Your task to perform on an android device: Open Chrome and go to settings Image 0: 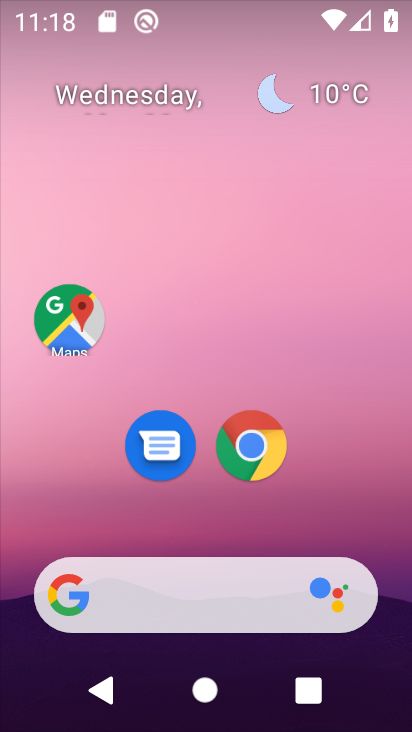
Step 0: click (258, 445)
Your task to perform on an android device: Open Chrome and go to settings Image 1: 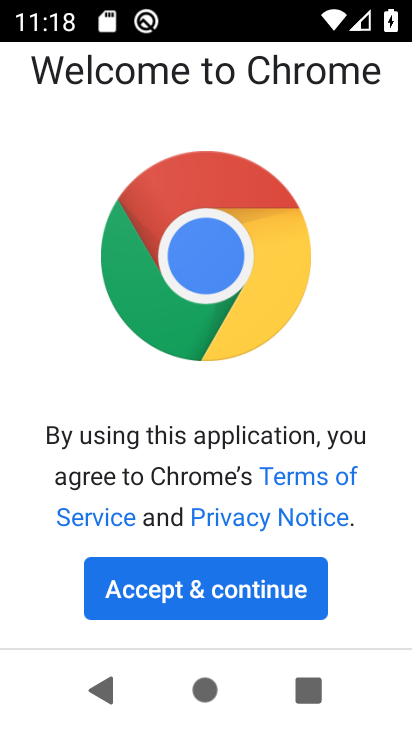
Step 1: click (223, 593)
Your task to perform on an android device: Open Chrome and go to settings Image 2: 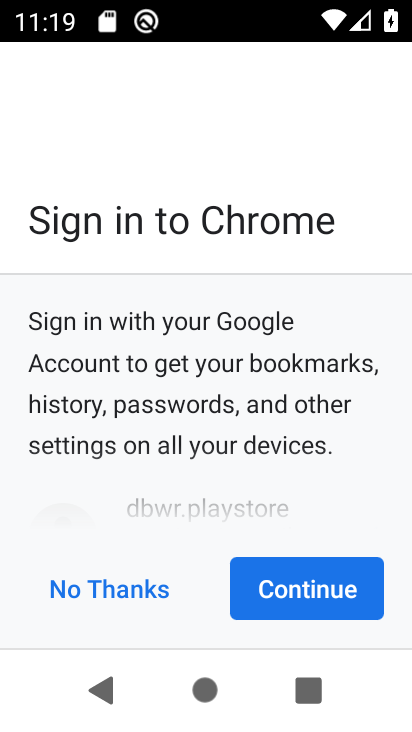
Step 2: click (296, 590)
Your task to perform on an android device: Open Chrome and go to settings Image 3: 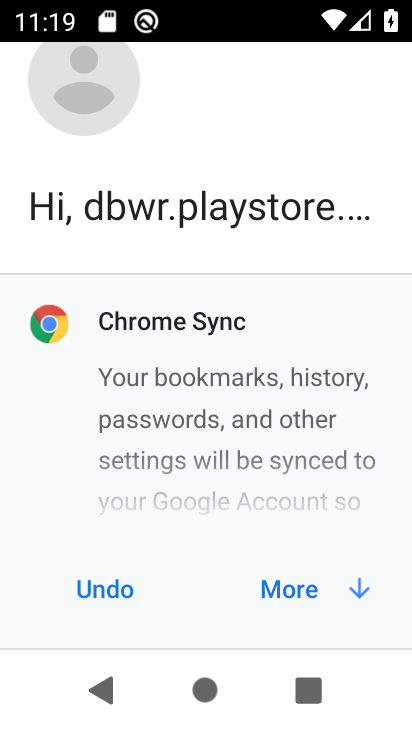
Step 3: click (309, 589)
Your task to perform on an android device: Open Chrome and go to settings Image 4: 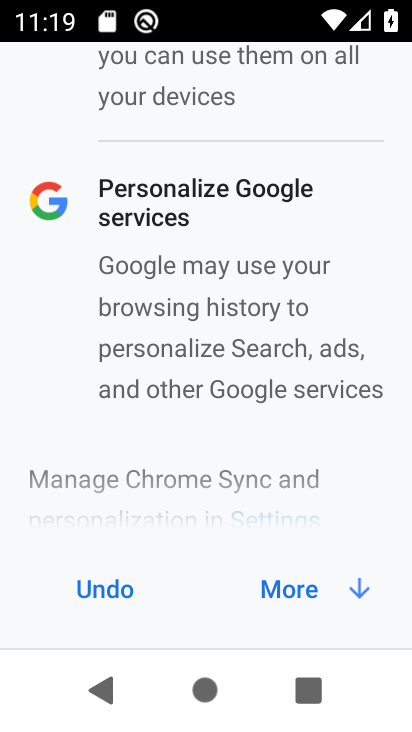
Step 4: click (307, 590)
Your task to perform on an android device: Open Chrome and go to settings Image 5: 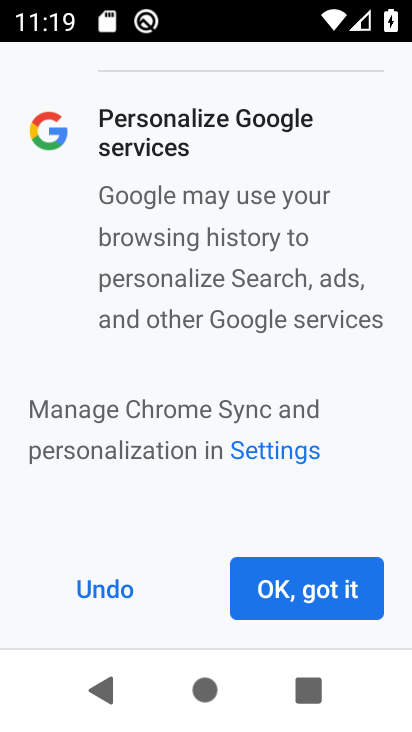
Step 5: click (305, 589)
Your task to perform on an android device: Open Chrome and go to settings Image 6: 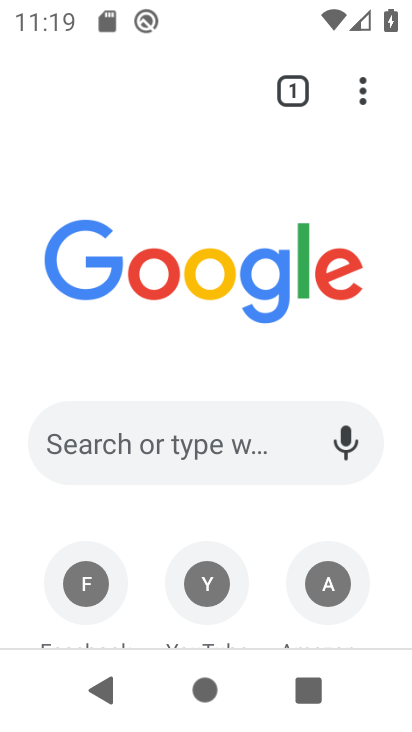
Step 6: task complete